Your task to perform on an android device: refresh tabs in the chrome app Image 0: 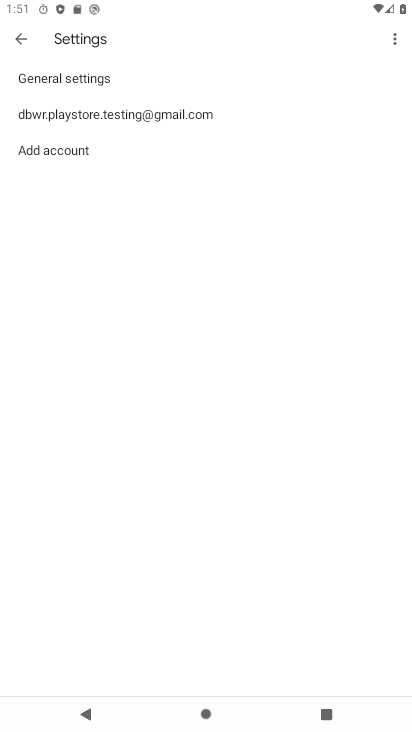
Step 0: press home button
Your task to perform on an android device: refresh tabs in the chrome app Image 1: 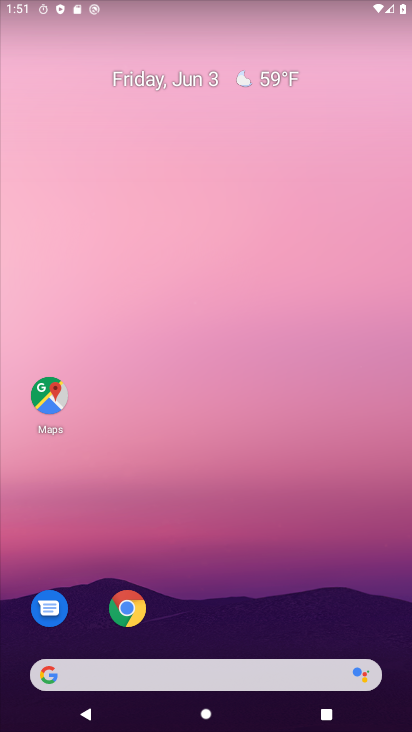
Step 1: click (121, 617)
Your task to perform on an android device: refresh tabs in the chrome app Image 2: 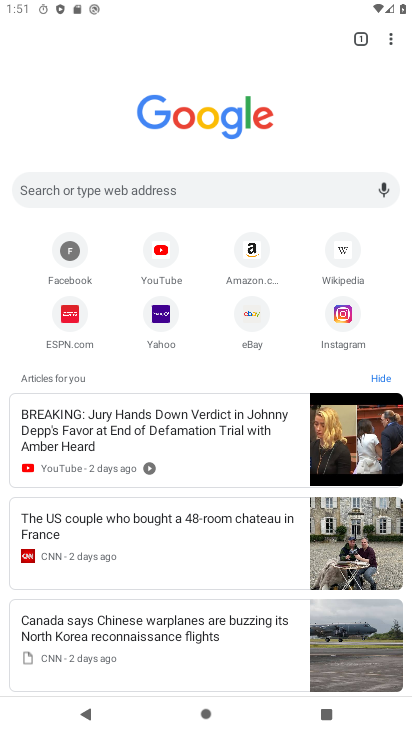
Step 2: click (388, 37)
Your task to perform on an android device: refresh tabs in the chrome app Image 3: 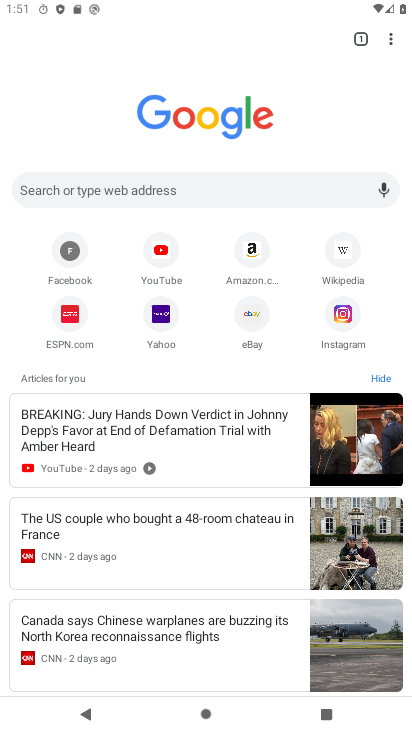
Step 3: task complete